Your task to perform on an android device: Go to Maps Image 0: 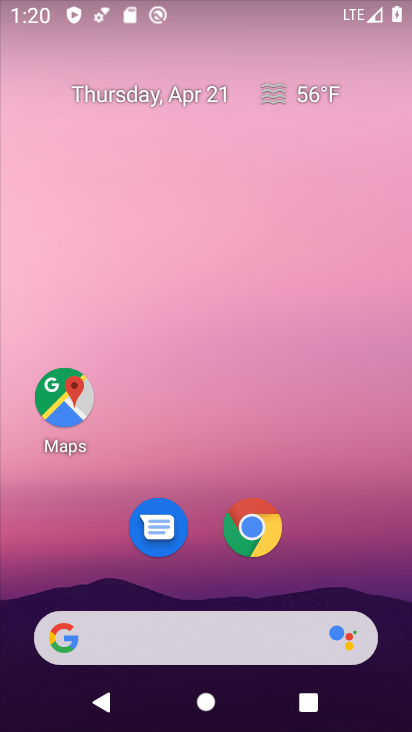
Step 0: click (67, 395)
Your task to perform on an android device: Go to Maps Image 1: 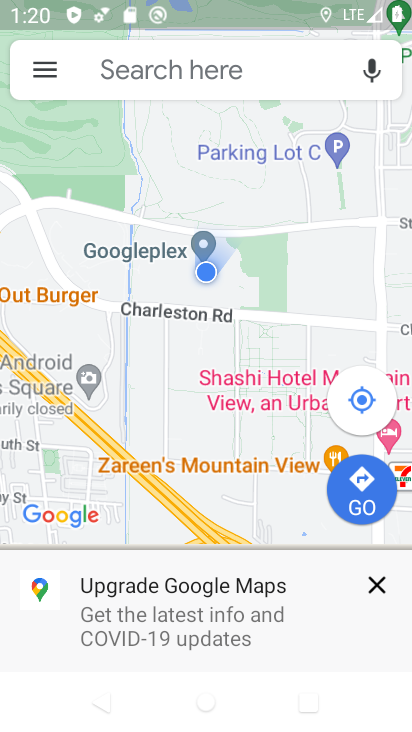
Step 1: task complete